Your task to perform on an android device: Turn off the flashlight Image 0: 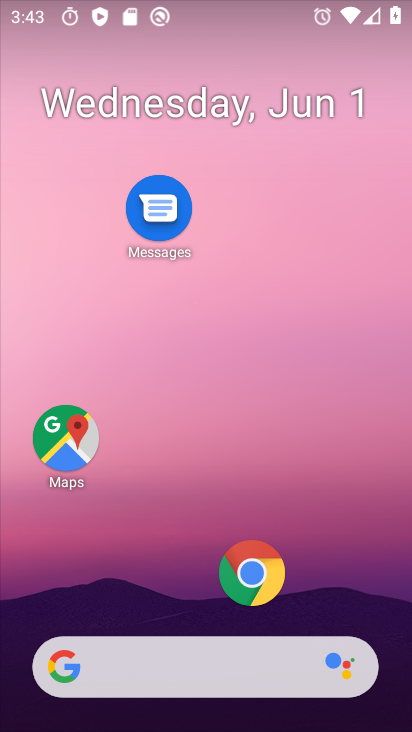
Step 0: drag from (194, 609) to (171, 171)
Your task to perform on an android device: Turn off the flashlight Image 1: 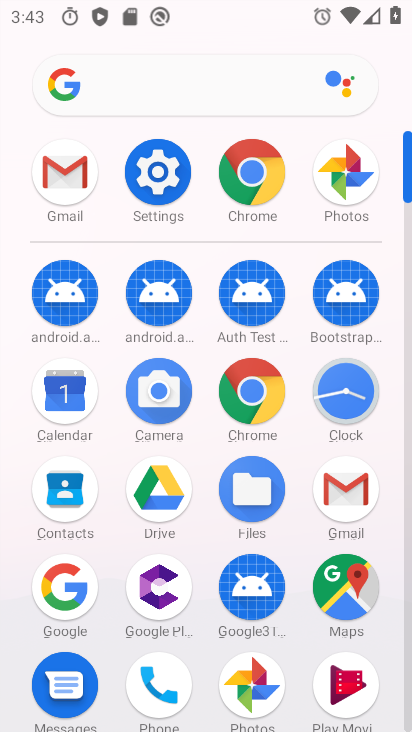
Step 1: click (171, 149)
Your task to perform on an android device: Turn off the flashlight Image 2: 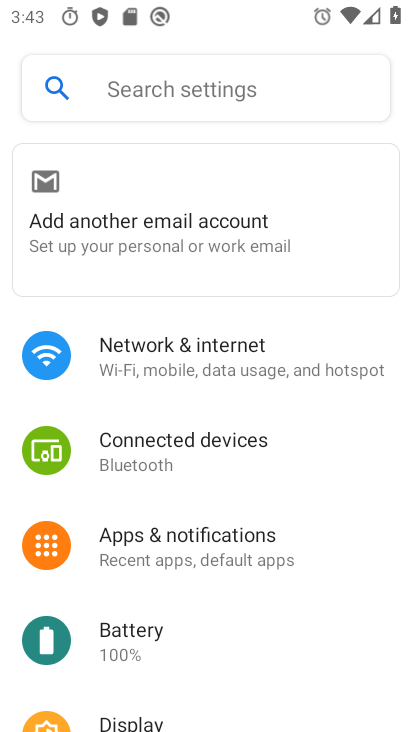
Step 2: task complete